Your task to perform on an android device: Open calendar and show me the second week of next month Image 0: 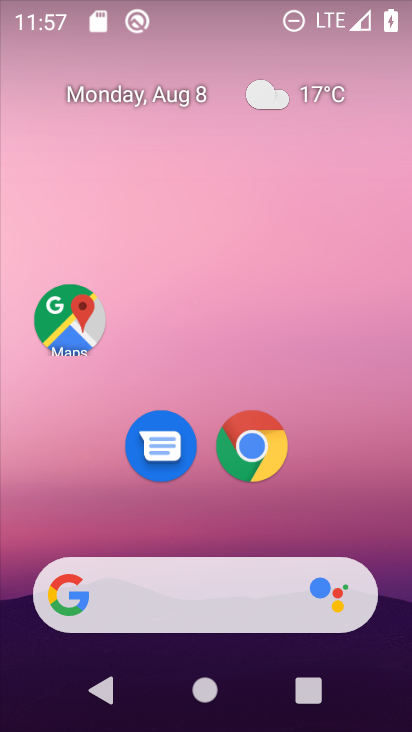
Step 0: drag from (393, 622) to (345, 31)
Your task to perform on an android device: Open calendar and show me the second week of next month Image 1: 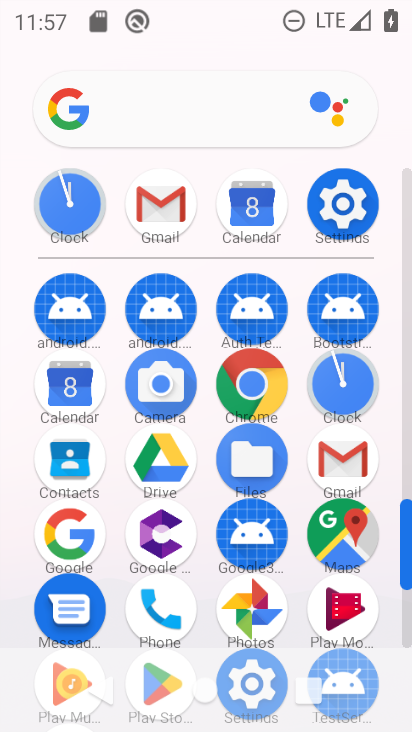
Step 1: click (404, 628)
Your task to perform on an android device: Open calendar and show me the second week of next month Image 2: 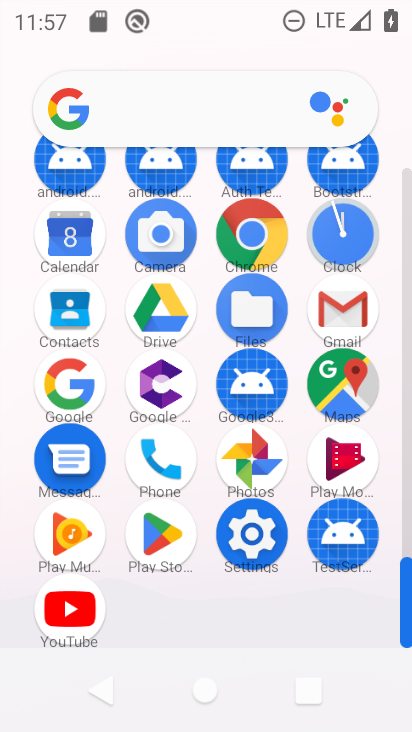
Step 2: click (68, 236)
Your task to perform on an android device: Open calendar and show me the second week of next month Image 3: 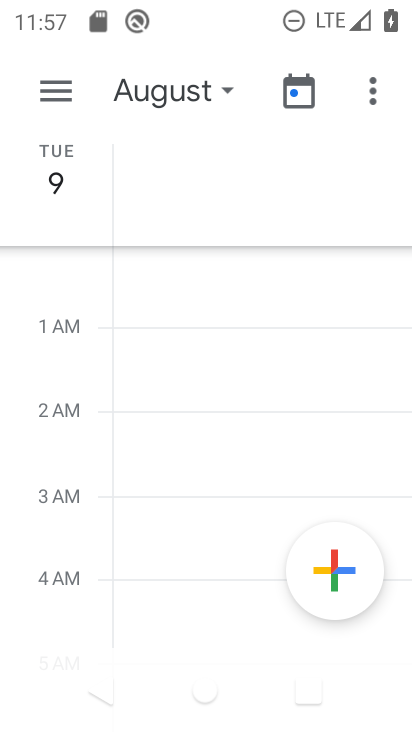
Step 3: click (62, 95)
Your task to perform on an android device: Open calendar and show me the second week of next month Image 4: 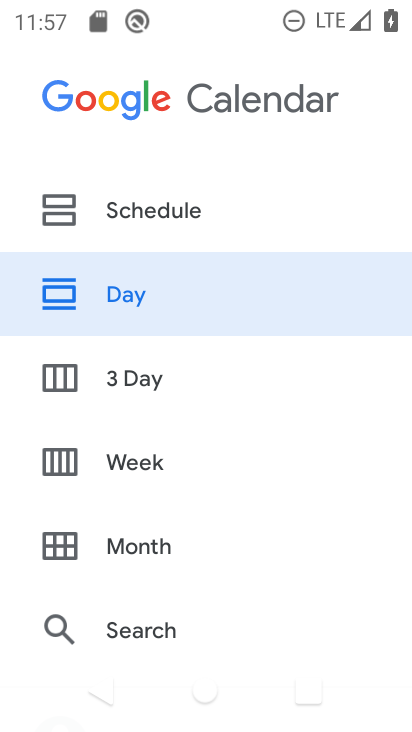
Step 4: click (143, 471)
Your task to perform on an android device: Open calendar and show me the second week of next month Image 5: 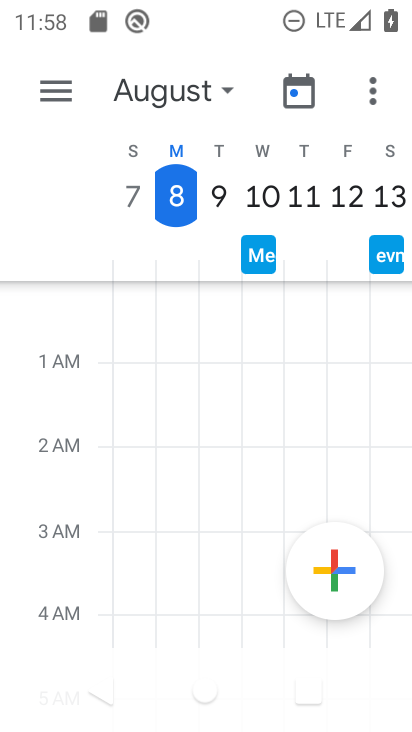
Step 5: click (223, 100)
Your task to perform on an android device: Open calendar and show me the second week of next month Image 6: 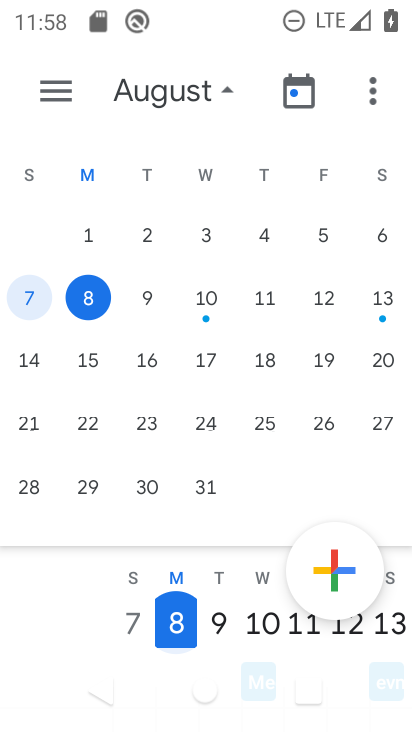
Step 6: drag from (392, 398) to (2, 365)
Your task to perform on an android device: Open calendar and show me the second week of next month Image 7: 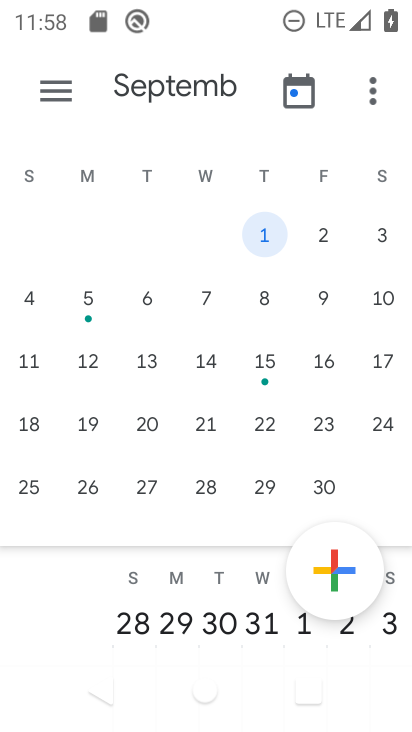
Step 7: click (29, 361)
Your task to perform on an android device: Open calendar and show me the second week of next month Image 8: 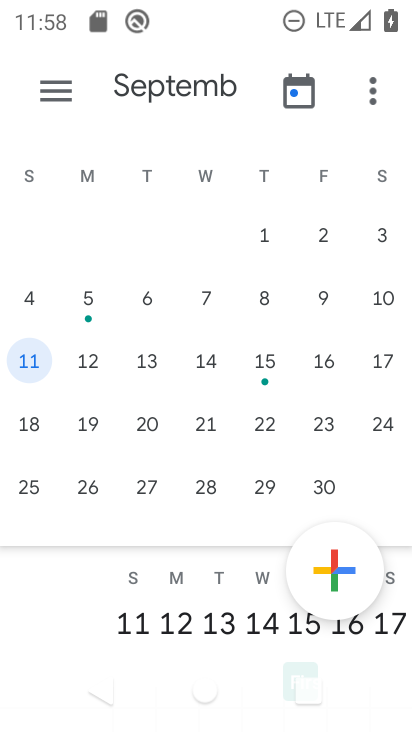
Step 8: task complete